Your task to perform on an android device: toggle show notifications on the lock screen Image 0: 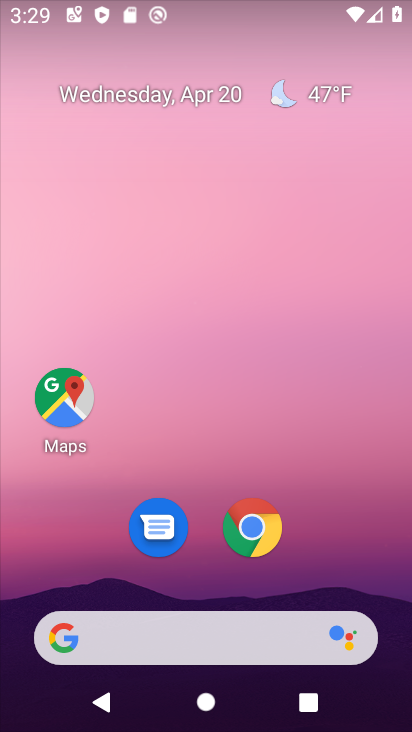
Step 0: drag from (316, 572) to (358, 111)
Your task to perform on an android device: toggle show notifications on the lock screen Image 1: 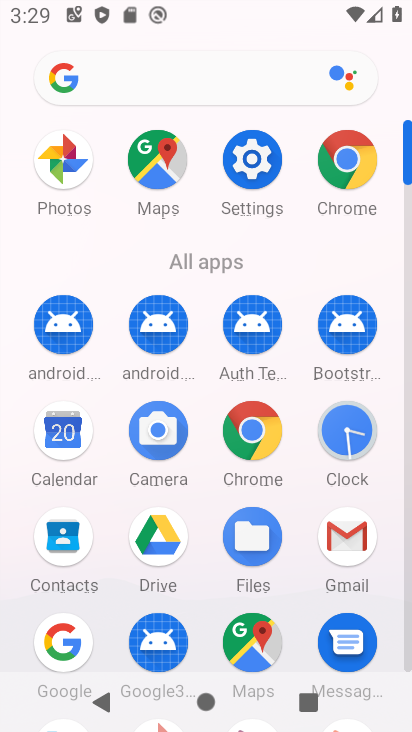
Step 1: click (241, 154)
Your task to perform on an android device: toggle show notifications on the lock screen Image 2: 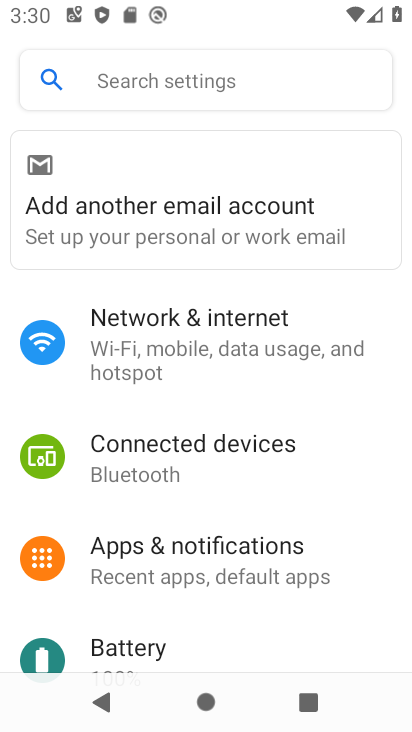
Step 2: click (191, 591)
Your task to perform on an android device: toggle show notifications on the lock screen Image 3: 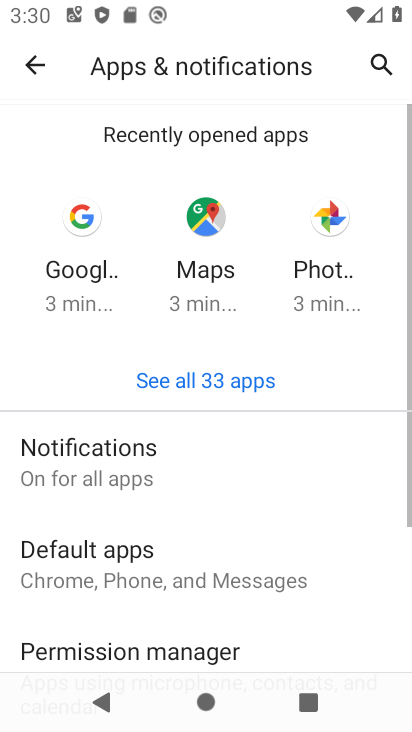
Step 3: click (140, 473)
Your task to perform on an android device: toggle show notifications on the lock screen Image 4: 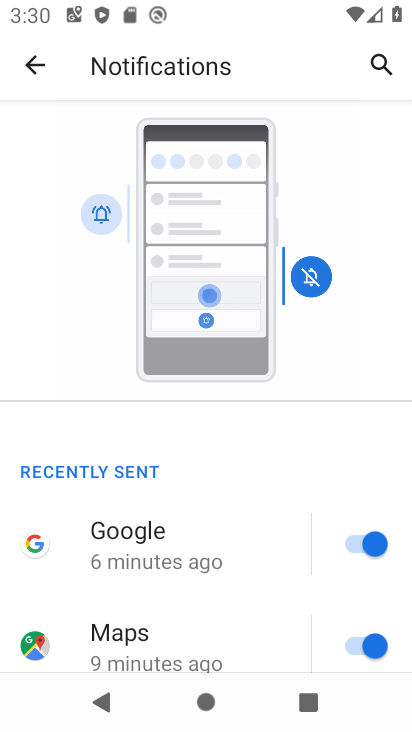
Step 4: drag from (232, 631) to (244, 336)
Your task to perform on an android device: toggle show notifications on the lock screen Image 5: 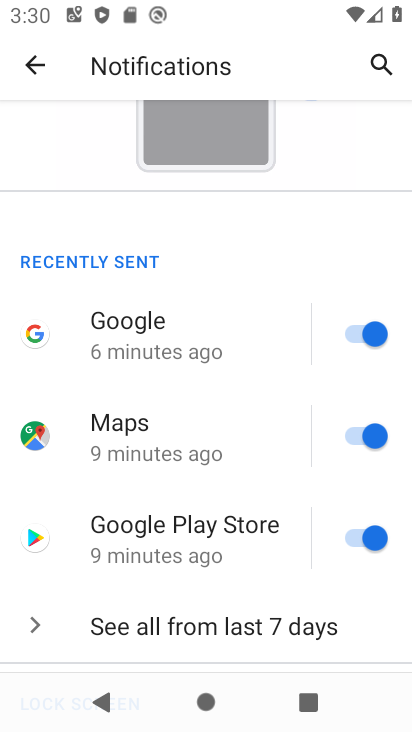
Step 5: drag from (194, 586) to (215, 268)
Your task to perform on an android device: toggle show notifications on the lock screen Image 6: 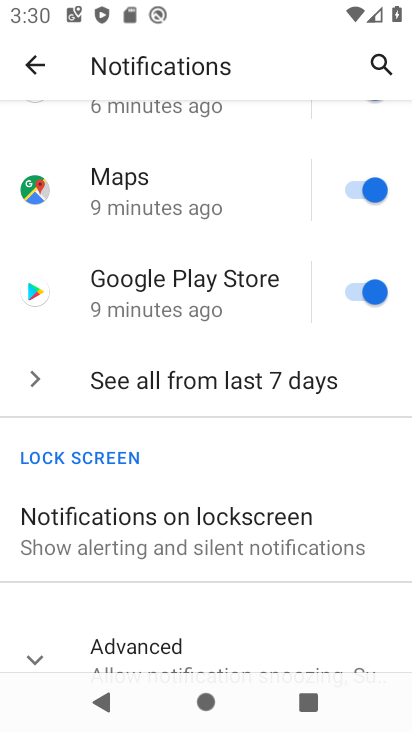
Step 6: click (248, 542)
Your task to perform on an android device: toggle show notifications on the lock screen Image 7: 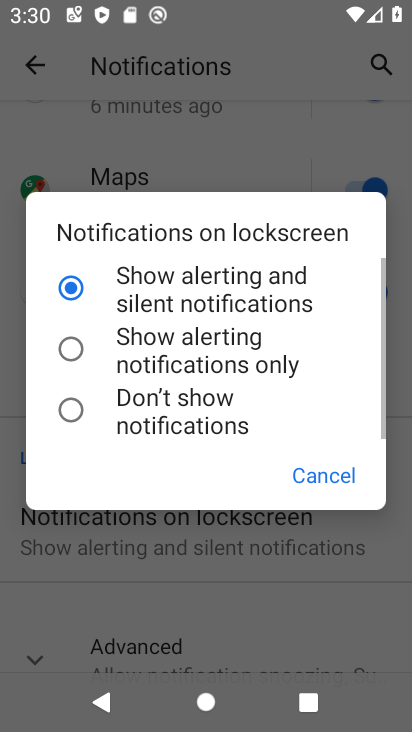
Step 7: click (177, 362)
Your task to perform on an android device: toggle show notifications on the lock screen Image 8: 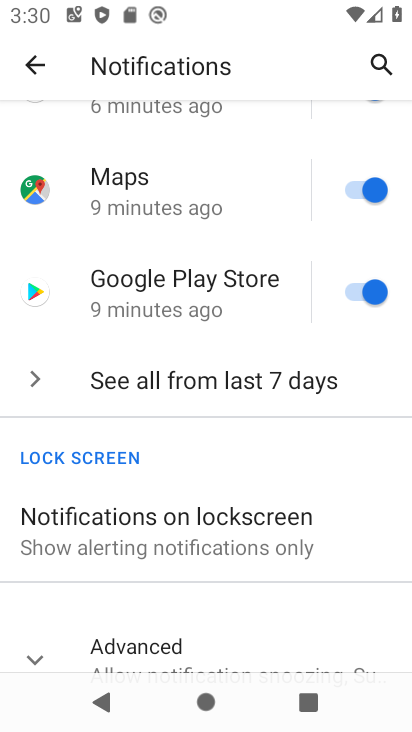
Step 8: task complete